Your task to perform on an android device: Open Google Chrome and click the shortcut for Amazon.com Image 0: 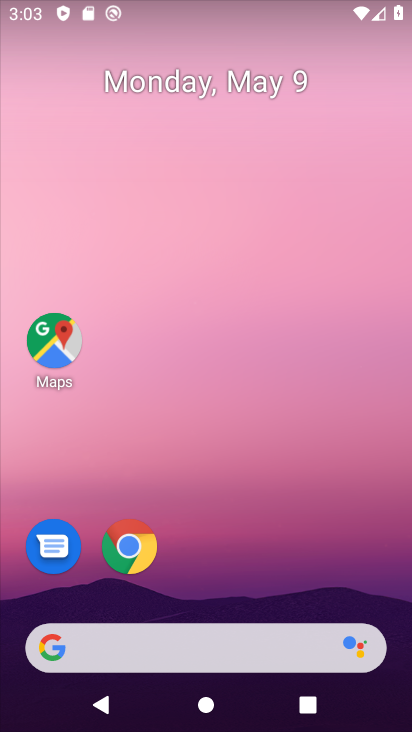
Step 0: click (113, 541)
Your task to perform on an android device: Open Google Chrome and click the shortcut for Amazon.com Image 1: 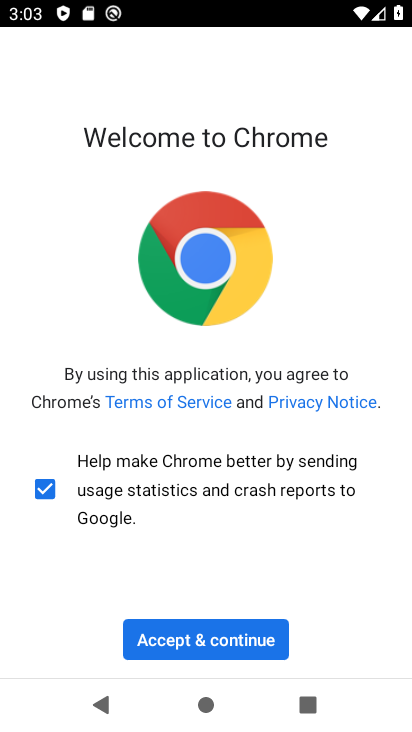
Step 1: click (216, 635)
Your task to perform on an android device: Open Google Chrome and click the shortcut for Amazon.com Image 2: 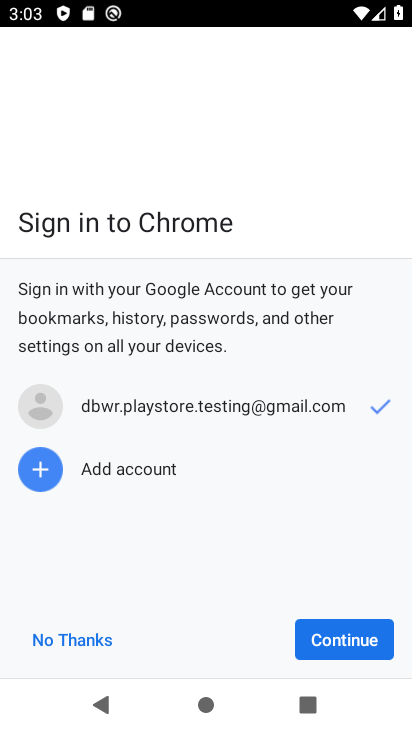
Step 2: click (92, 641)
Your task to perform on an android device: Open Google Chrome and click the shortcut for Amazon.com Image 3: 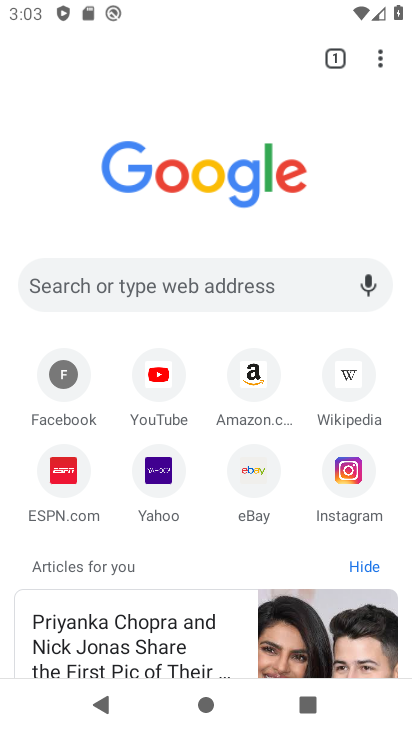
Step 3: click (252, 370)
Your task to perform on an android device: Open Google Chrome and click the shortcut for Amazon.com Image 4: 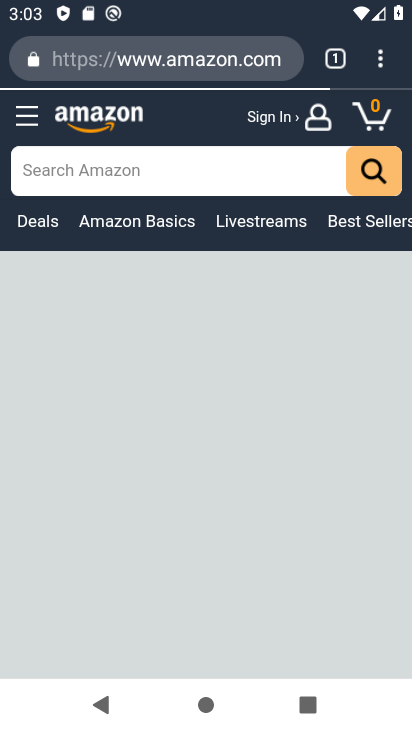
Step 4: drag from (384, 61) to (255, 557)
Your task to perform on an android device: Open Google Chrome and click the shortcut for Amazon.com Image 5: 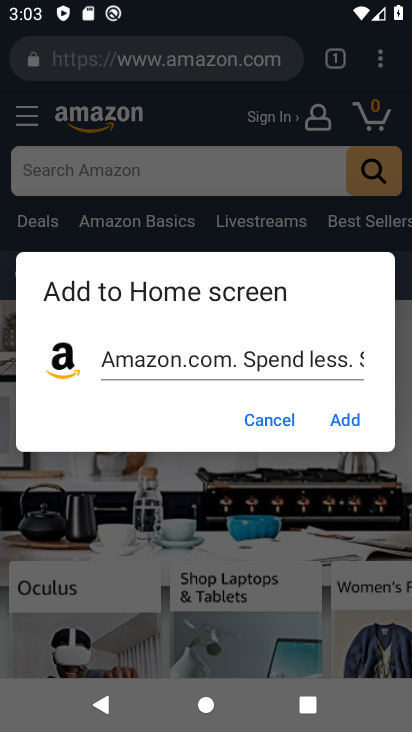
Step 5: click (337, 421)
Your task to perform on an android device: Open Google Chrome and click the shortcut for Amazon.com Image 6: 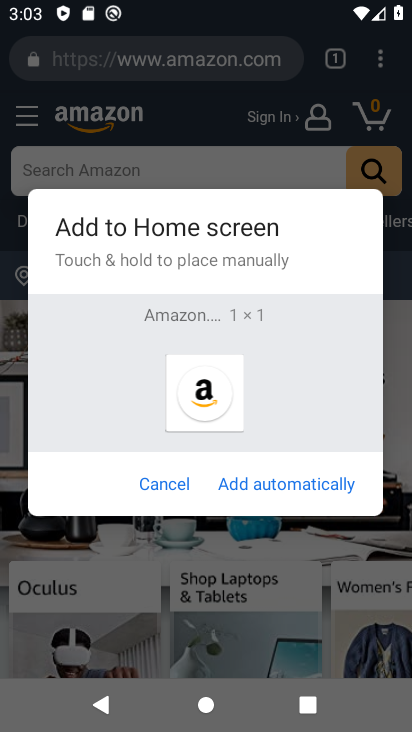
Step 6: click (311, 490)
Your task to perform on an android device: Open Google Chrome and click the shortcut for Amazon.com Image 7: 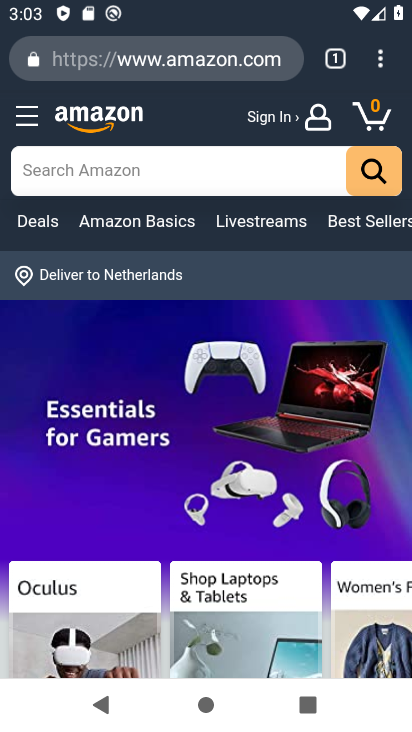
Step 7: click (213, 698)
Your task to perform on an android device: Open Google Chrome and click the shortcut for Amazon.com Image 8: 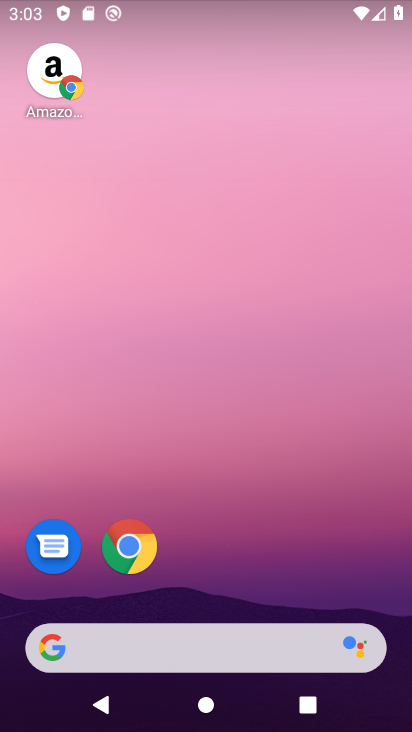
Step 8: task complete